Your task to perform on an android device: Open Google Maps and go to "Timeline" Image 0: 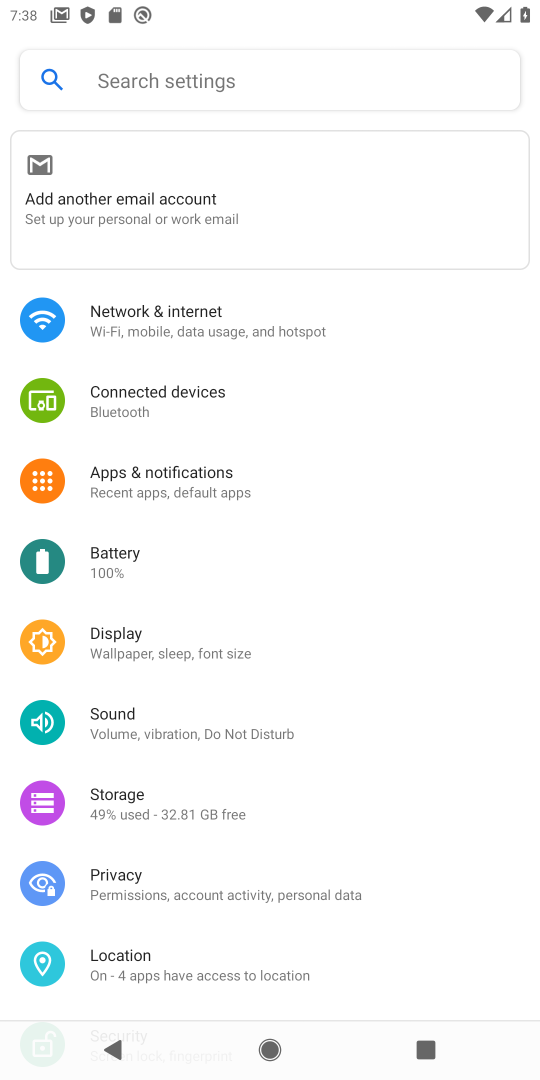
Step 0: press home button
Your task to perform on an android device: Open Google Maps and go to "Timeline" Image 1: 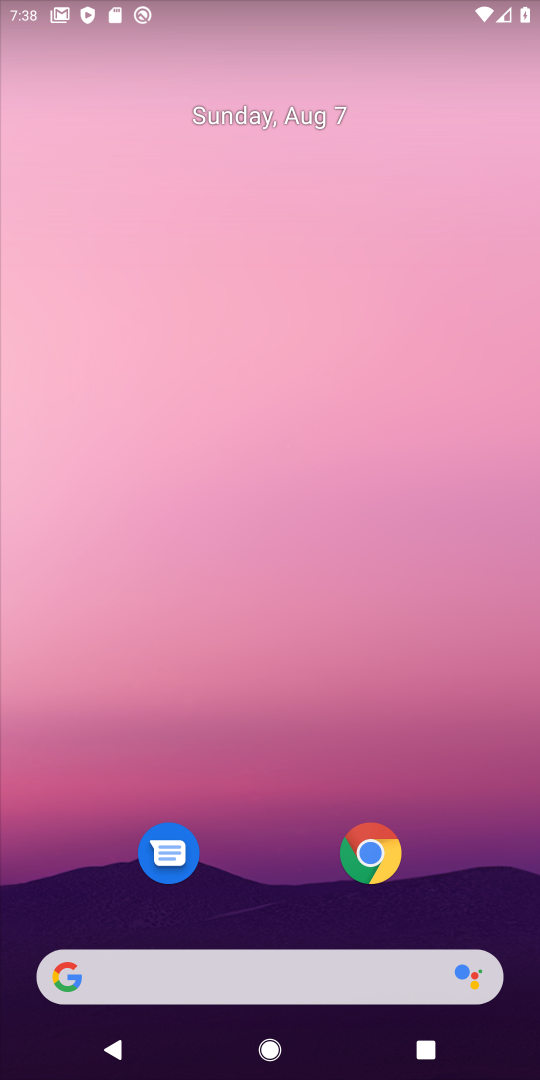
Step 1: drag from (246, 814) to (326, 16)
Your task to perform on an android device: Open Google Maps and go to "Timeline" Image 2: 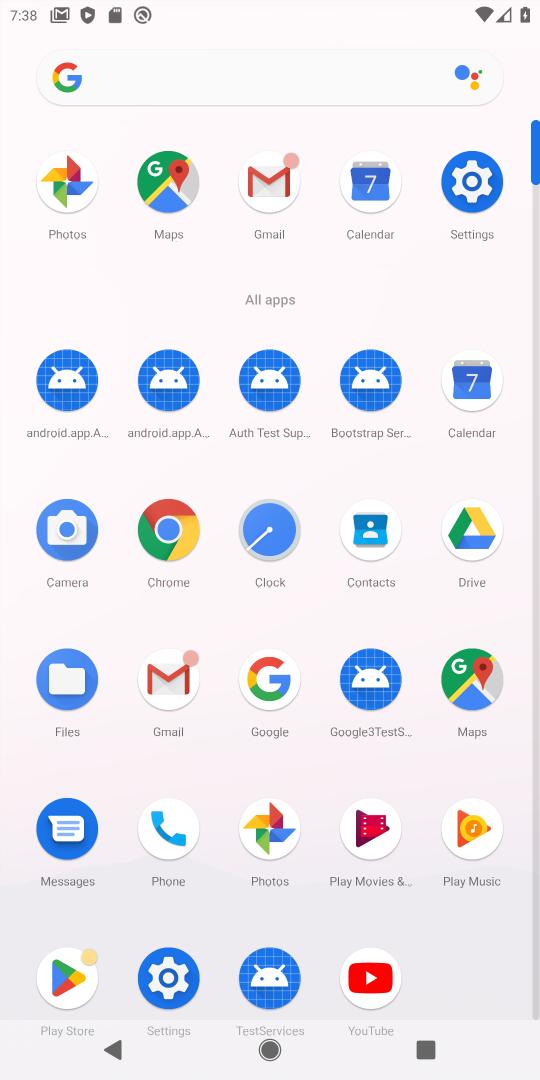
Step 2: click (486, 685)
Your task to perform on an android device: Open Google Maps and go to "Timeline" Image 3: 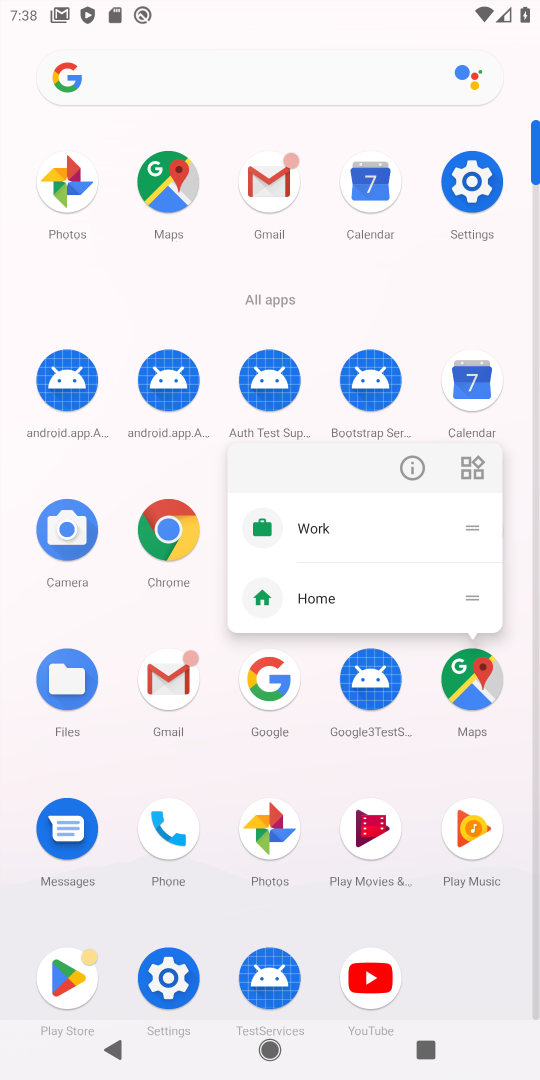
Step 3: click (490, 682)
Your task to perform on an android device: Open Google Maps and go to "Timeline" Image 4: 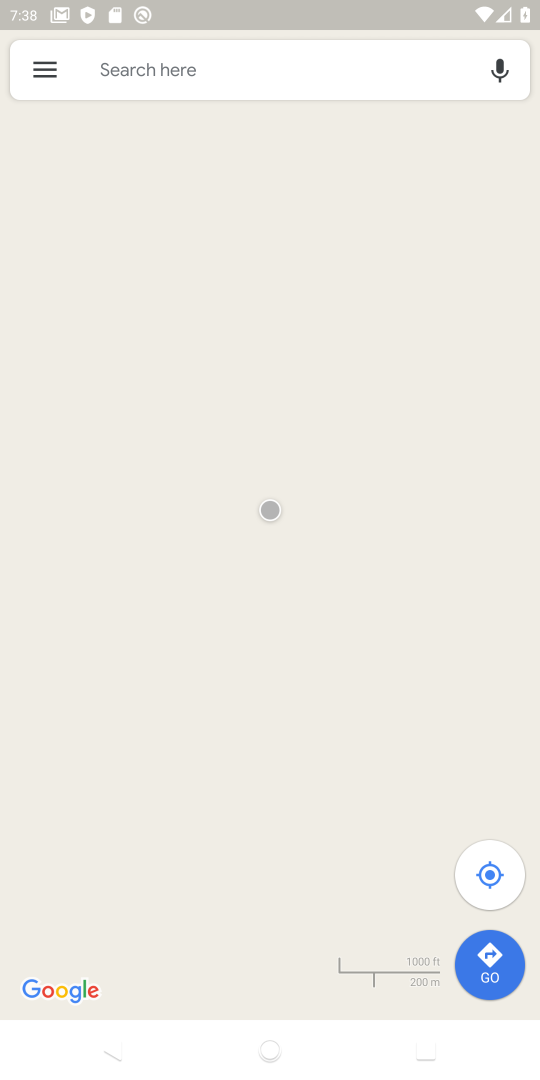
Step 4: click (30, 69)
Your task to perform on an android device: Open Google Maps and go to "Timeline" Image 5: 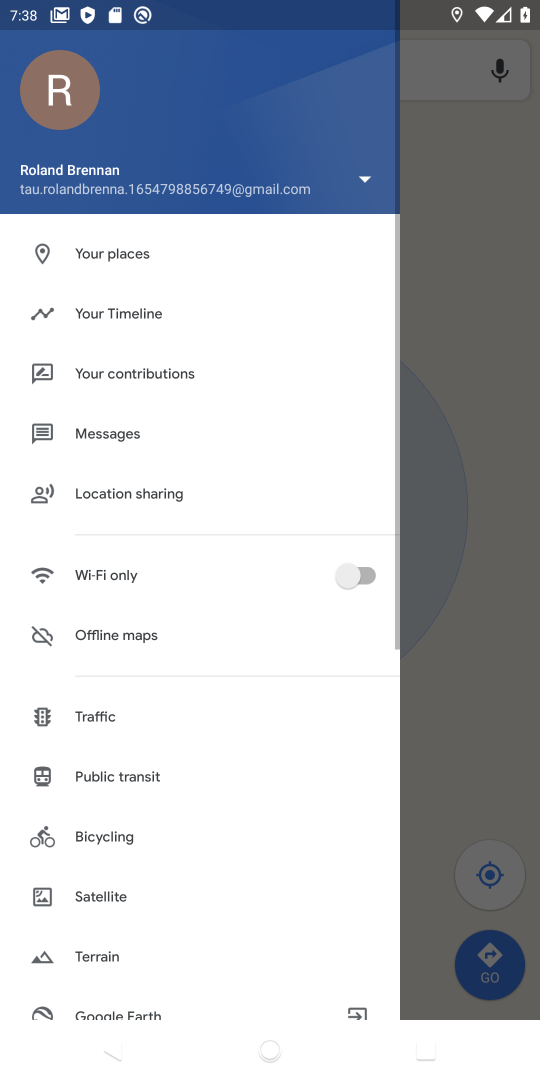
Step 5: click (120, 319)
Your task to perform on an android device: Open Google Maps and go to "Timeline" Image 6: 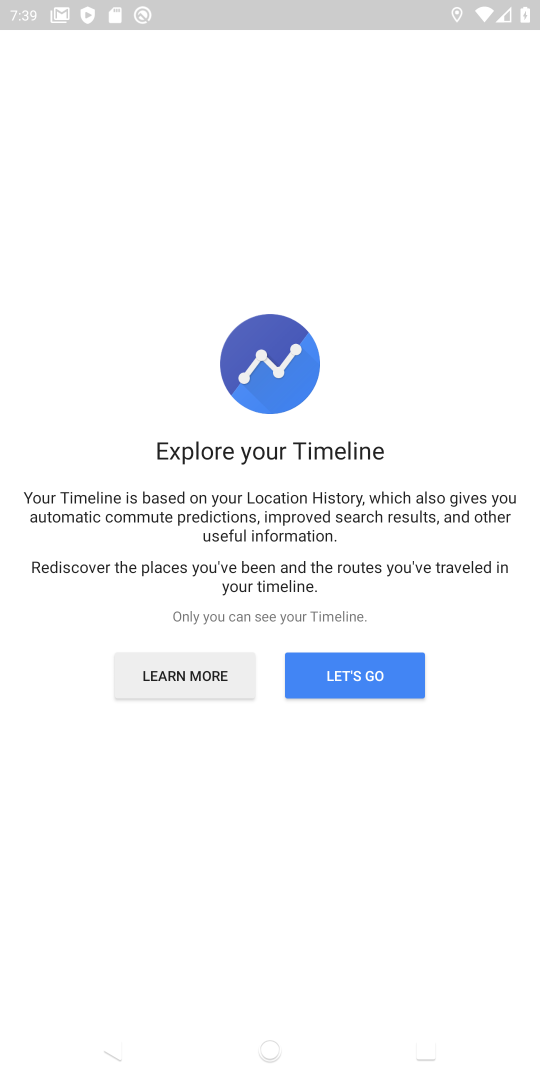
Step 6: click (364, 684)
Your task to perform on an android device: Open Google Maps and go to "Timeline" Image 7: 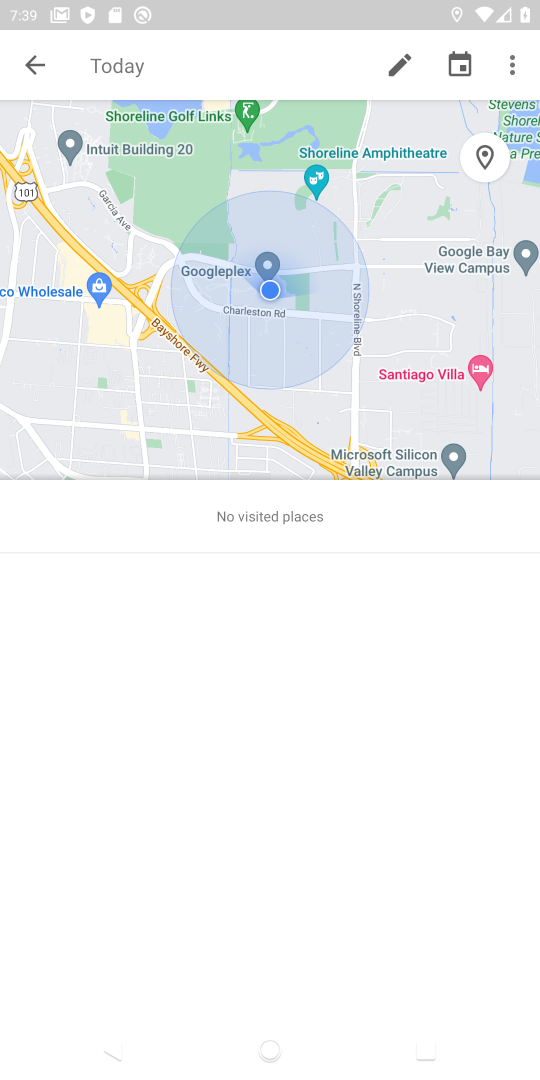
Step 7: task complete